Your task to perform on an android device: Play the last video I watched on Youtube Image 0: 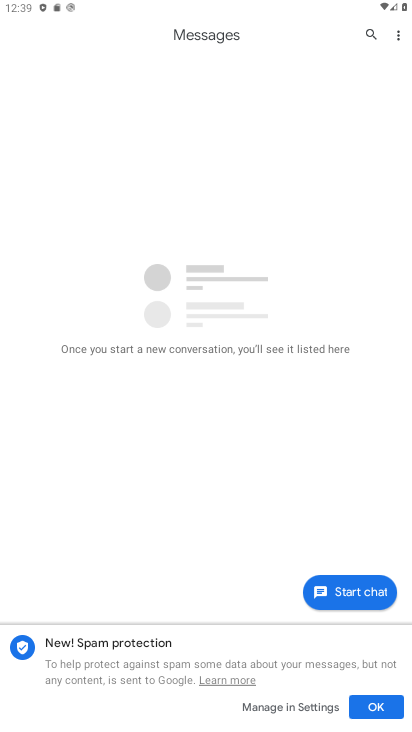
Step 0: task complete